Your task to perform on an android device: Go to network settings Image 0: 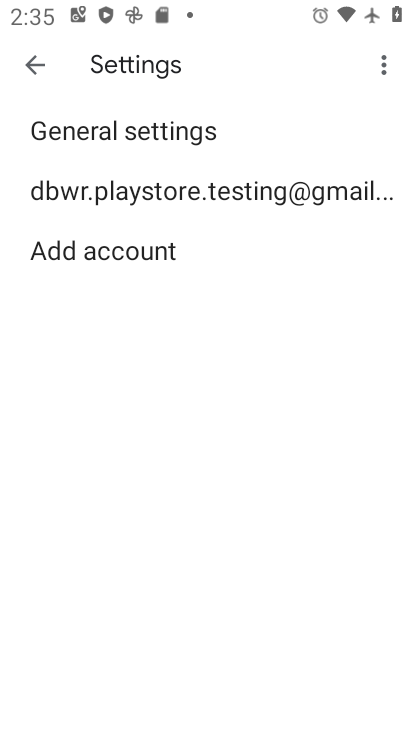
Step 0: press home button
Your task to perform on an android device: Go to network settings Image 1: 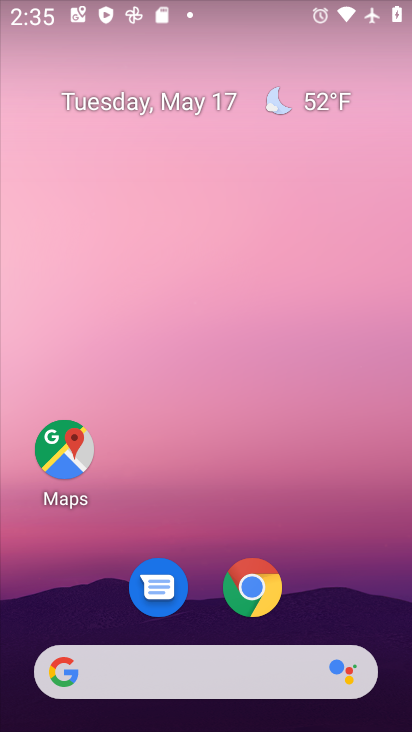
Step 1: drag from (327, 571) to (271, 59)
Your task to perform on an android device: Go to network settings Image 2: 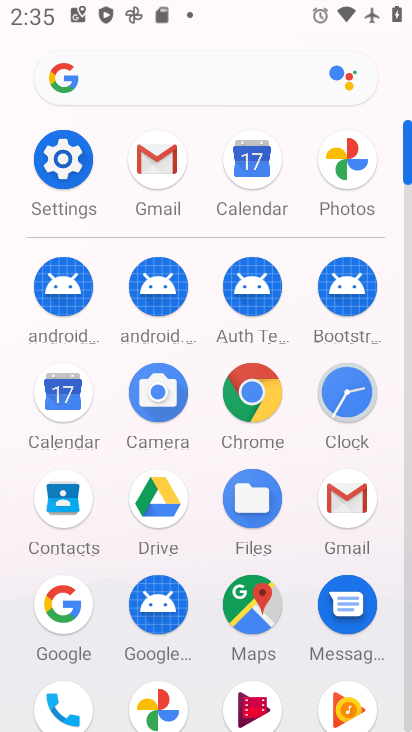
Step 2: click (54, 182)
Your task to perform on an android device: Go to network settings Image 3: 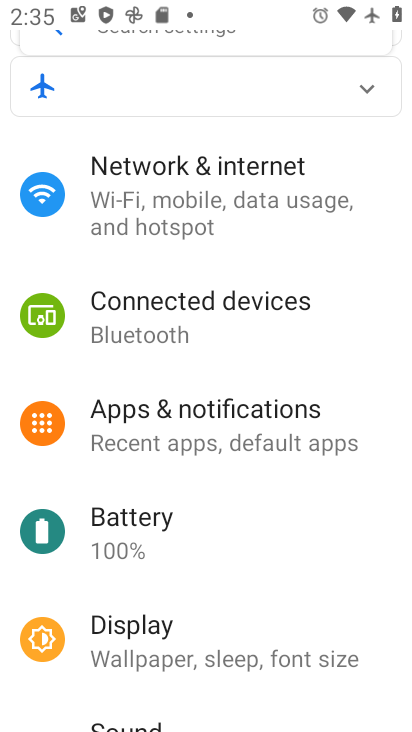
Step 3: click (220, 172)
Your task to perform on an android device: Go to network settings Image 4: 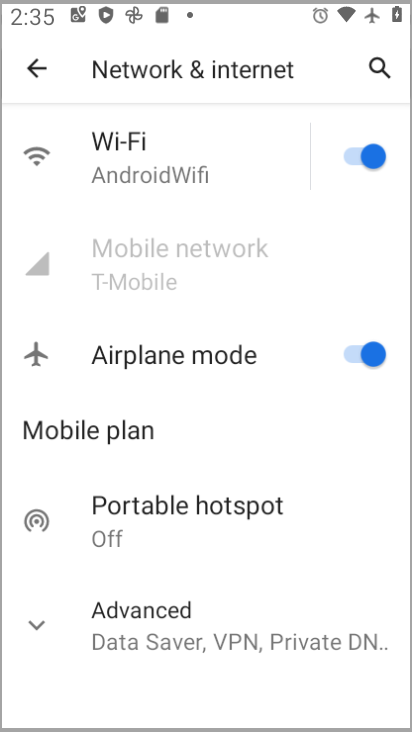
Step 4: task complete